Your task to perform on an android device: all mails in gmail Image 0: 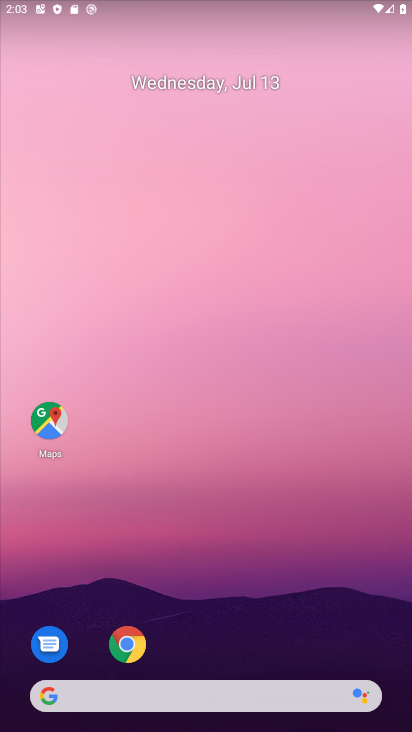
Step 0: drag from (288, 612) to (215, 161)
Your task to perform on an android device: all mails in gmail Image 1: 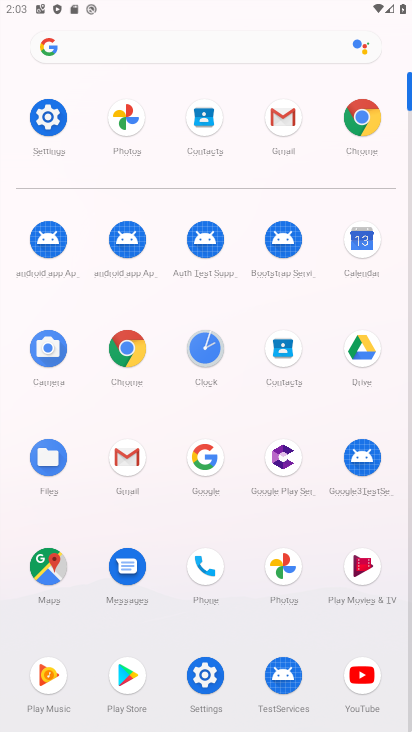
Step 1: click (283, 108)
Your task to perform on an android device: all mails in gmail Image 2: 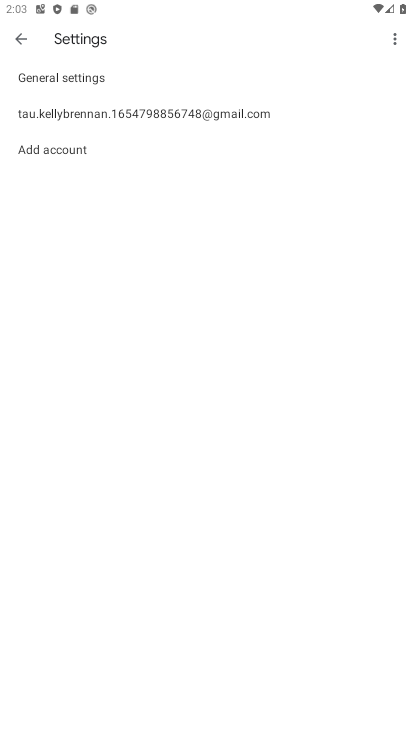
Step 2: click (16, 37)
Your task to perform on an android device: all mails in gmail Image 3: 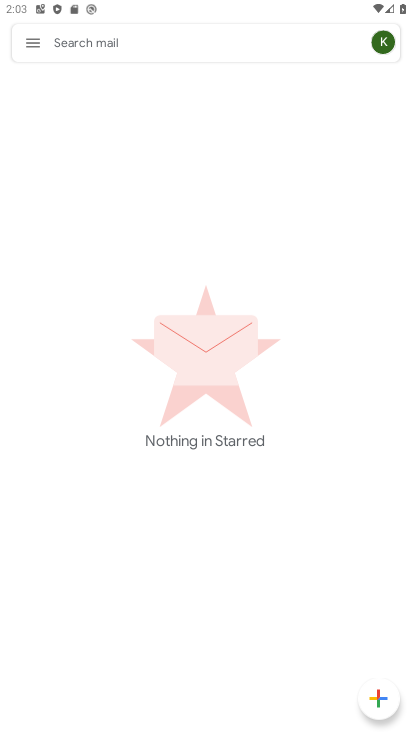
Step 3: click (41, 40)
Your task to perform on an android device: all mails in gmail Image 4: 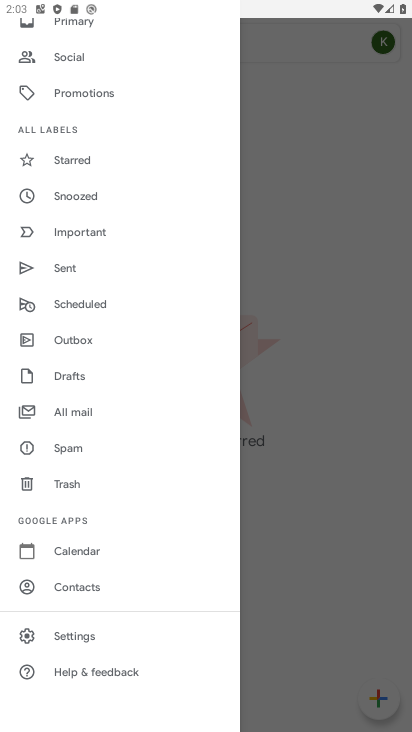
Step 4: click (64, 411)
Your task to perform on an android device: all mails in gmail Image 5: 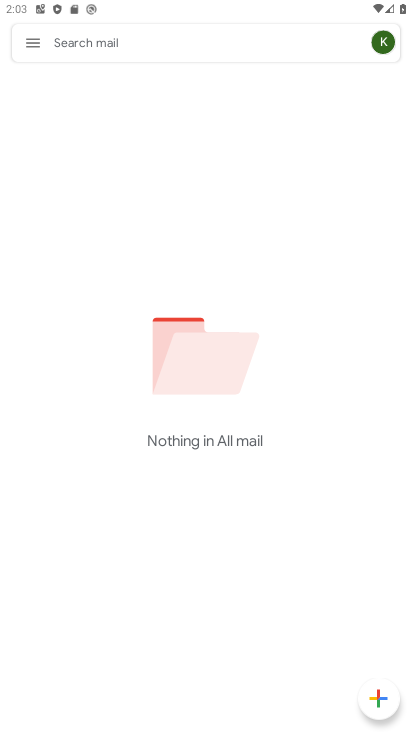
Step 5: task complete